Your task to perform on an android device: change the clock display to analog Image 0: 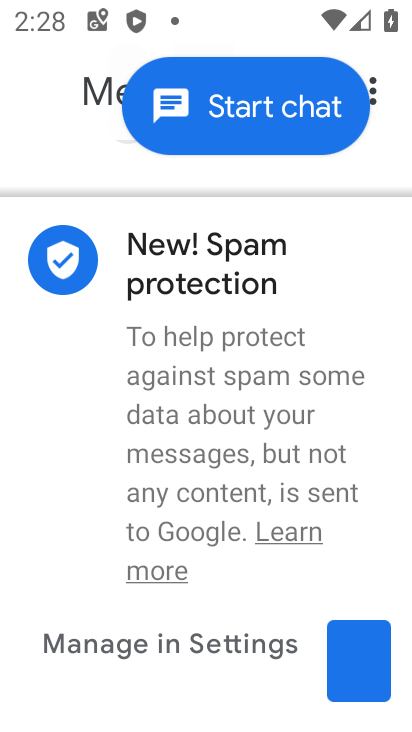
Step 0: press back button
Your task to perform on an android device: change the clock display to analog Image 1: 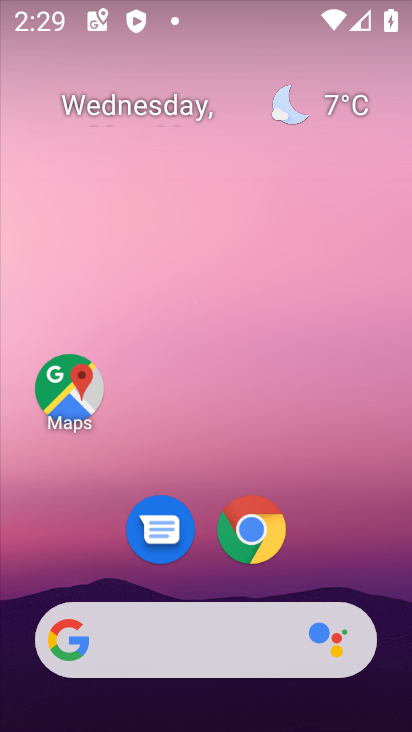
Step 1: drag from (53, 538) to (308, 157)
Your task to perform on an android device: change the clock display to analog Image 2: 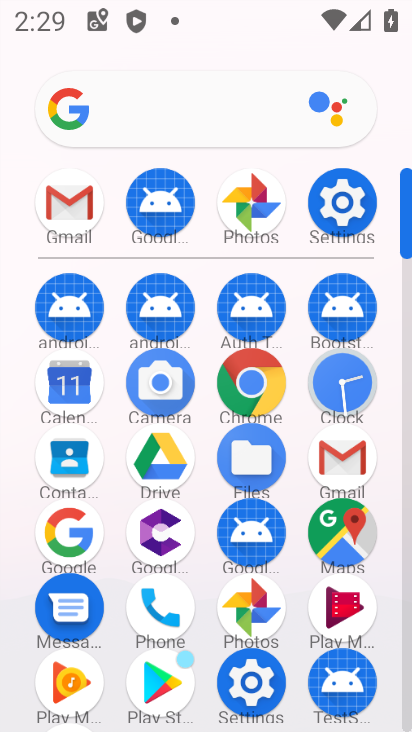
Step 2: click (336, 374)
Your task to perform on an android device: change the clock display to analog Image 3: 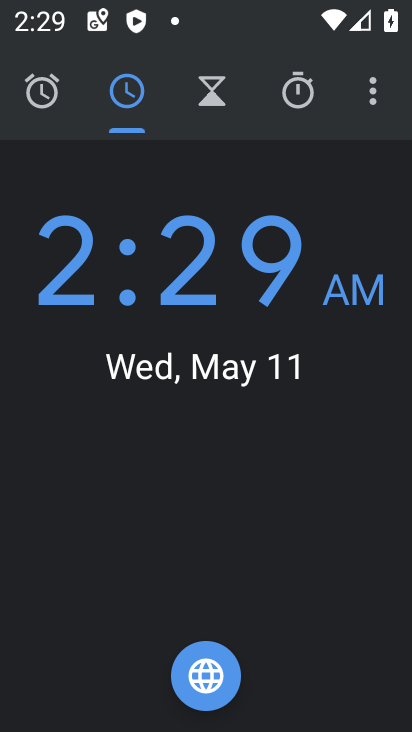
Step 3: click (368, 88)
Your task to perform on an android device: change the clock display to analog Image 4: 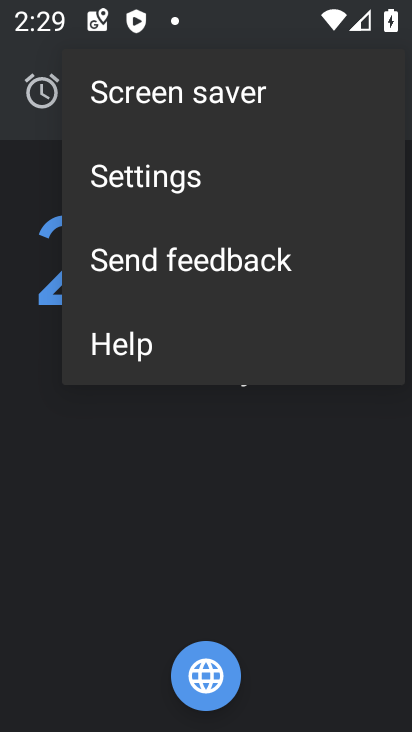
Step 4: click (235, 170)
Your task to perform on an android device: change the clock display to analog Image 5: 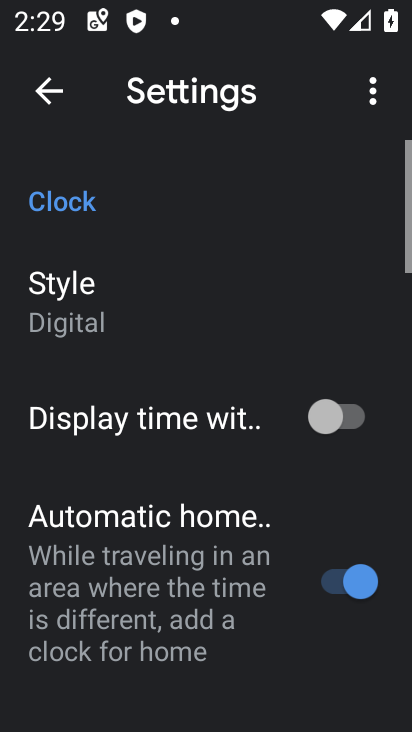
Step 5: click (69, 304)
Your task to perform on an android device: change the clock display to analog Image 6: 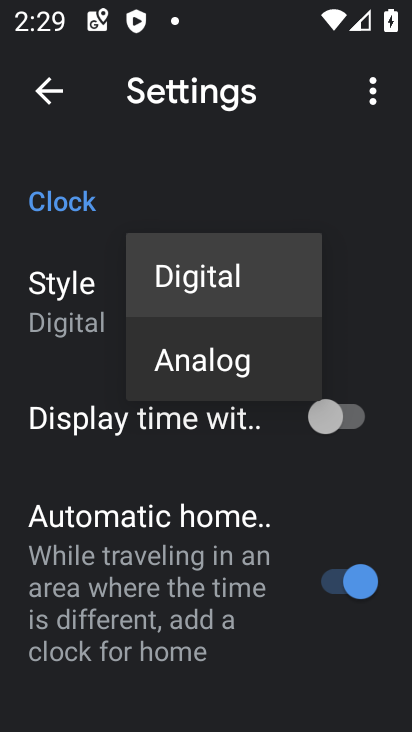
Step 6: click (219, 383)
Your task to perform on an android device: change the clock display to analog Image 7: 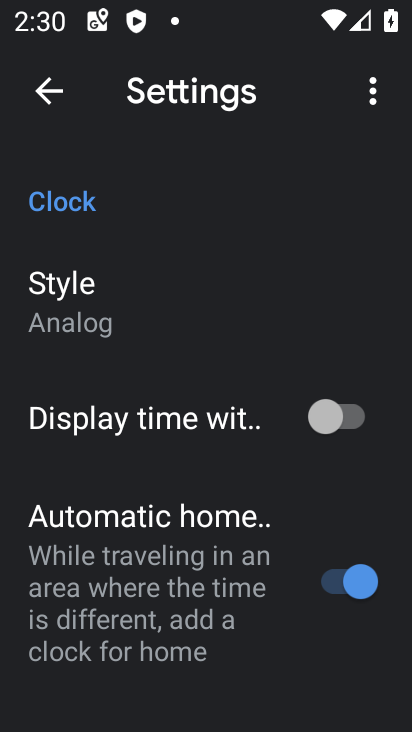
Step 7: task complete